Your task to perform on an android device: turn on the 24-hour format for clock Image 0: 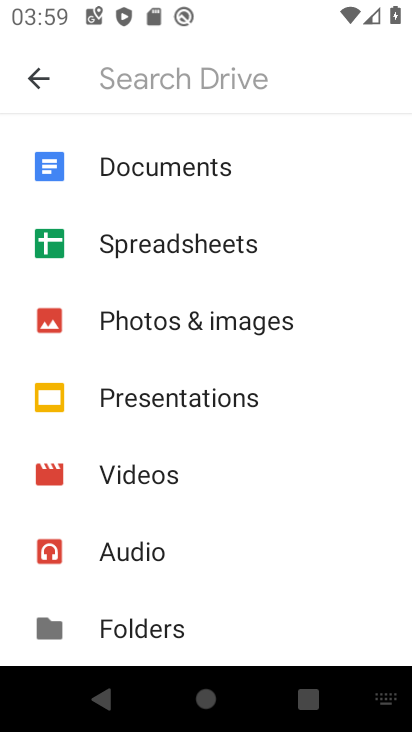
Step 0: press home button
Your task to perform on an android device: turn on the 24-hour format for clock Image 1: 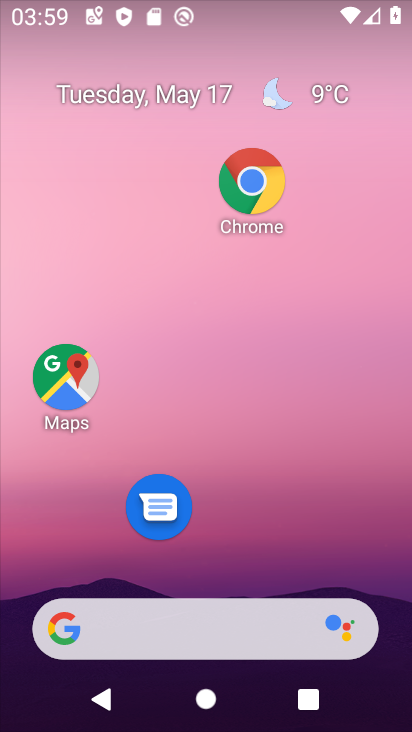
Step 1: drag from (180, 578) to (315, 88)
Your task to perform on an android device: turn on the 24-hour format for clock Image 2: 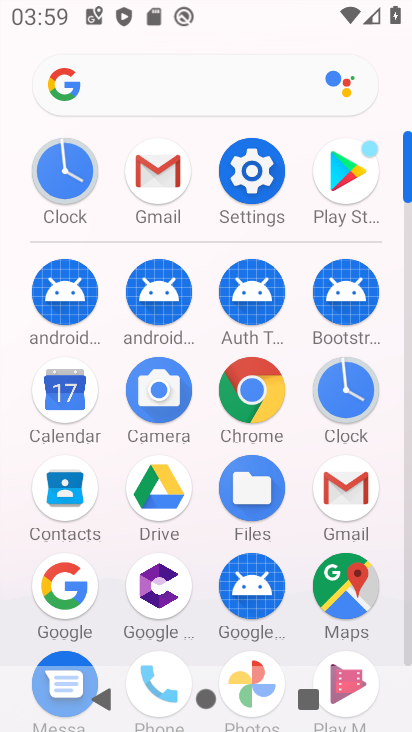
Step 2: click (67, 181)
Your task to perform on an android device: turn on the 24-hour format for clock Image 3: 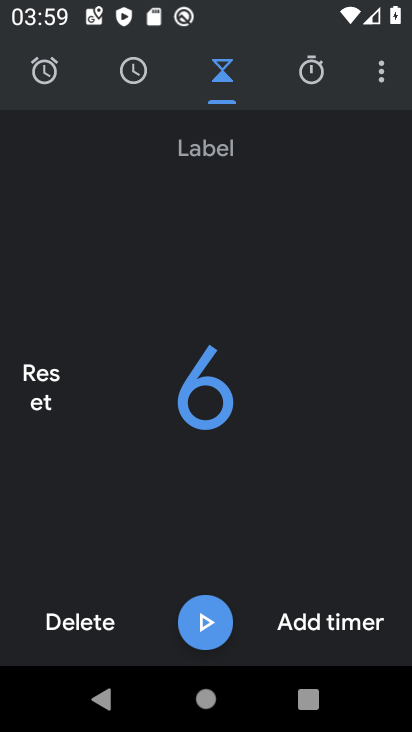
Step 3: click (392, 69)
Your task to perform on an android device: turn on the 24-hour format for clock Image 4: 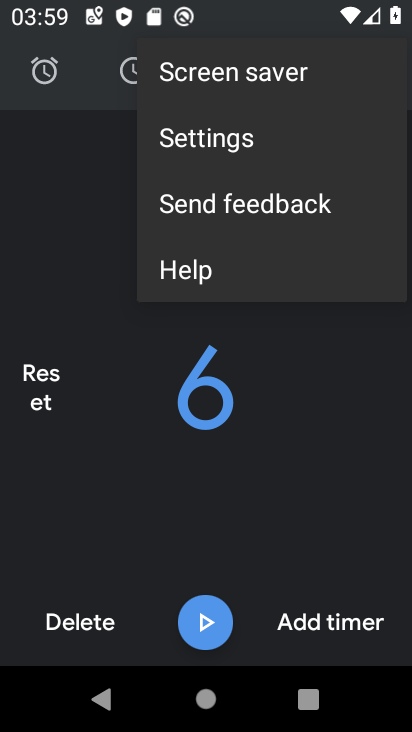
Step 4: click (222, 139)
Your task to perform on an android device: turn on the 24-hour format for clock Image 5: 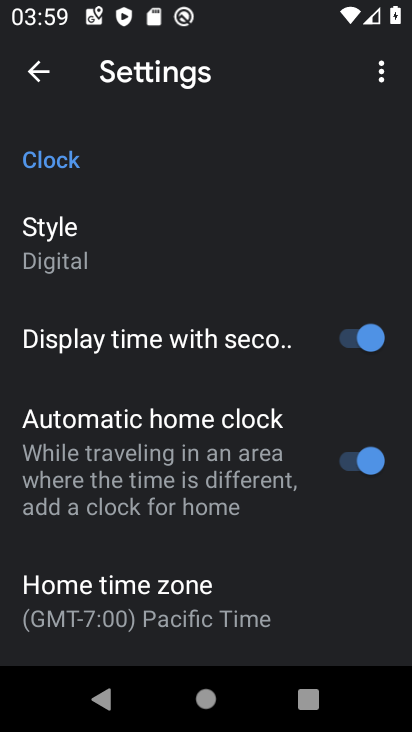
Step 5: drag from (222, 647) to (239, 447)
Your task to perform on an android device: turn on the 24-hour format for clock Image 6: 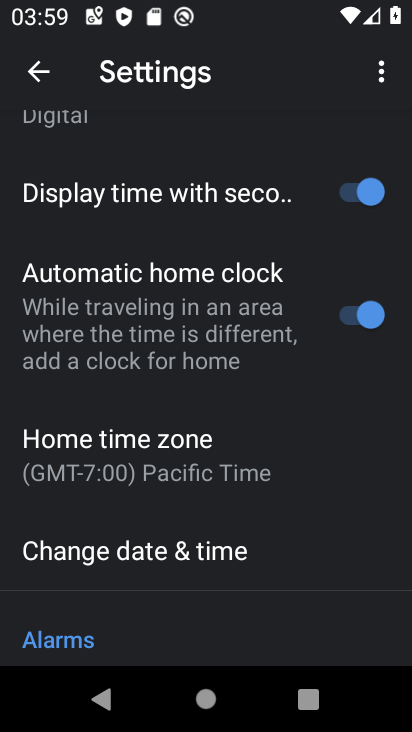
Step 6: click (245, 565)
Your task to perform on an android device: turn on the 24-hour format for clock Image 7: 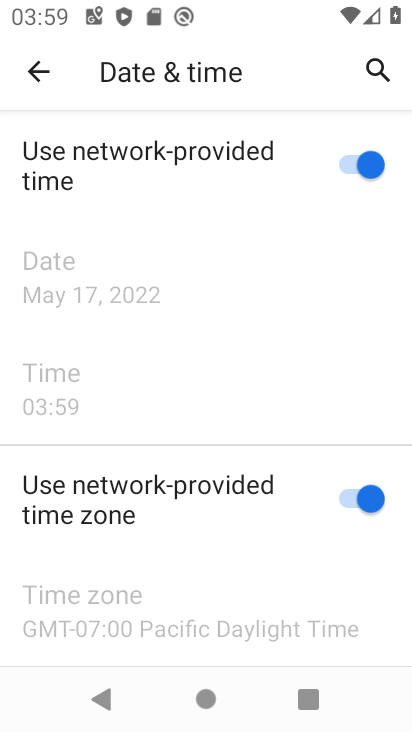
Step 7: task complete